Your task to perform on an android device: turn off notifications settings in the gmail app Image 0: 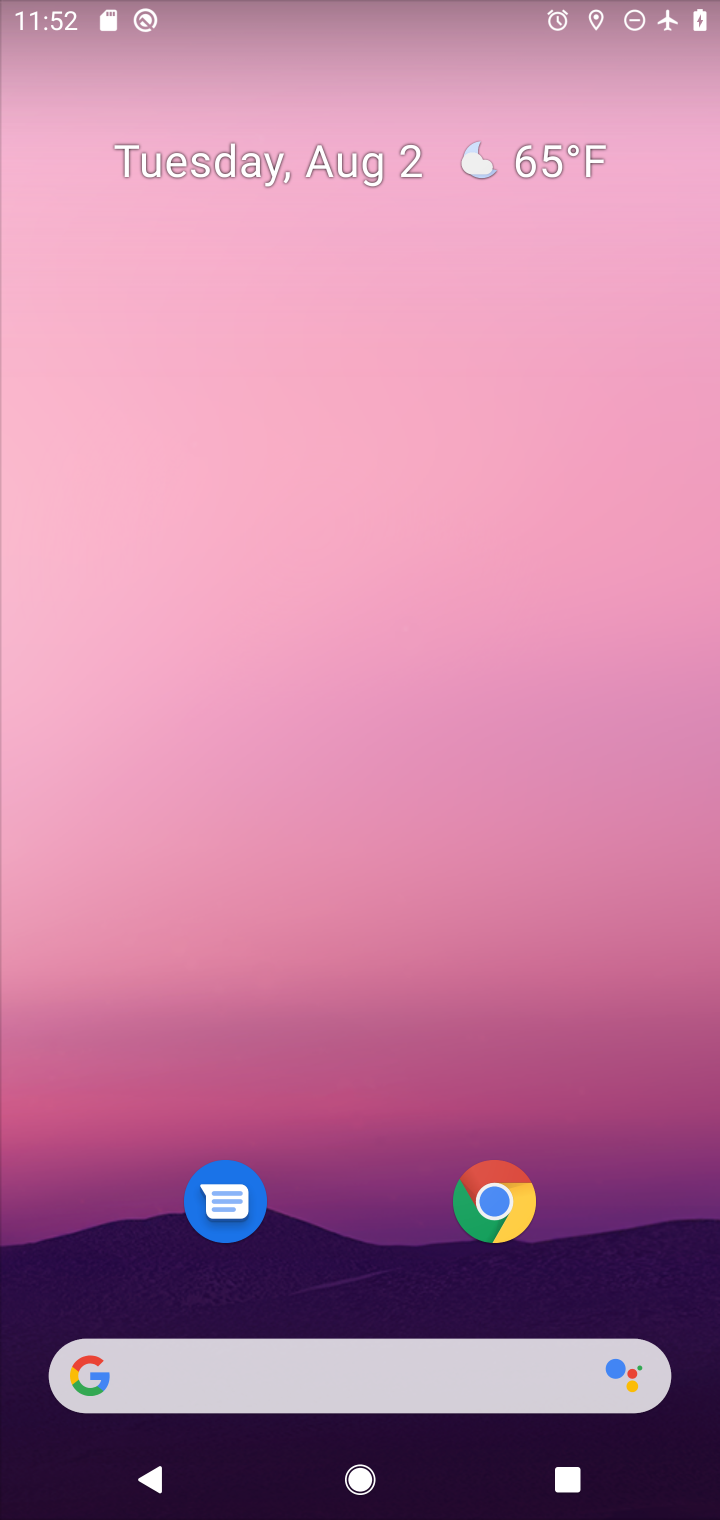
Step 0: drag from (354, 1279) to (479, 52)
Your task to perform on an android device: turn off notifications settings in the gmail app Image 1: 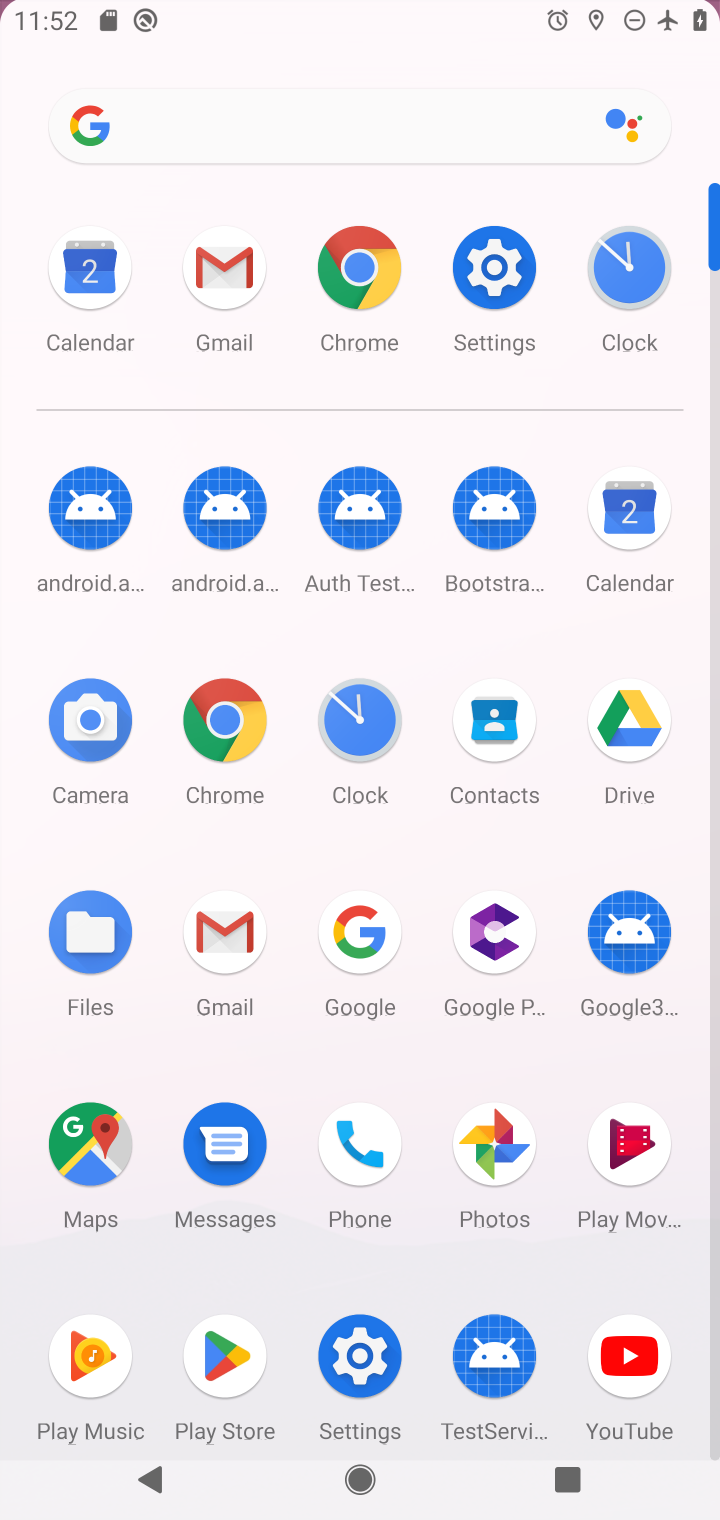
Step 1: click (245, 945)
Your task to perform on an android device: turn off notifications settings in the gmail app Image 2: 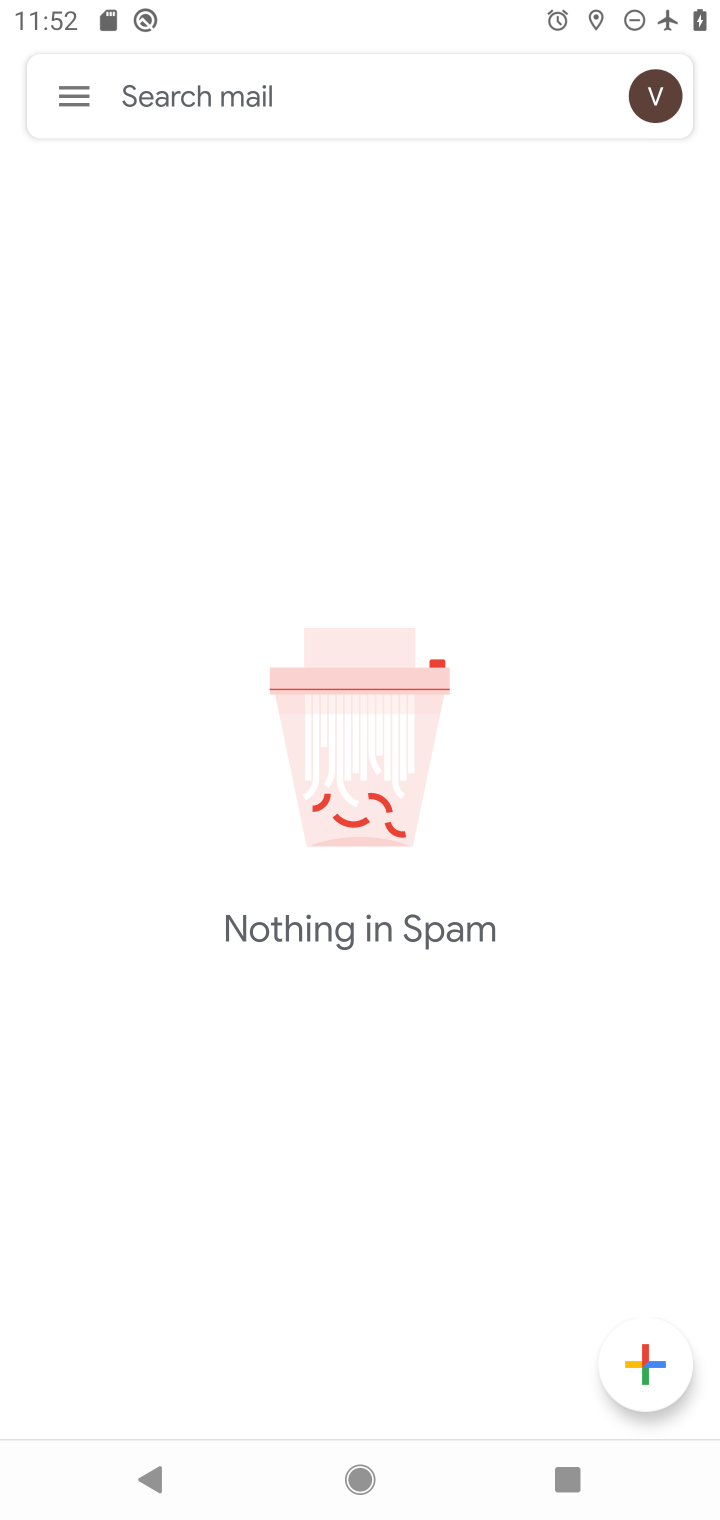
Step 2: click (58, 98)
Your task to perform on an android device: turn off notifications settings in the gmail app Image 3: 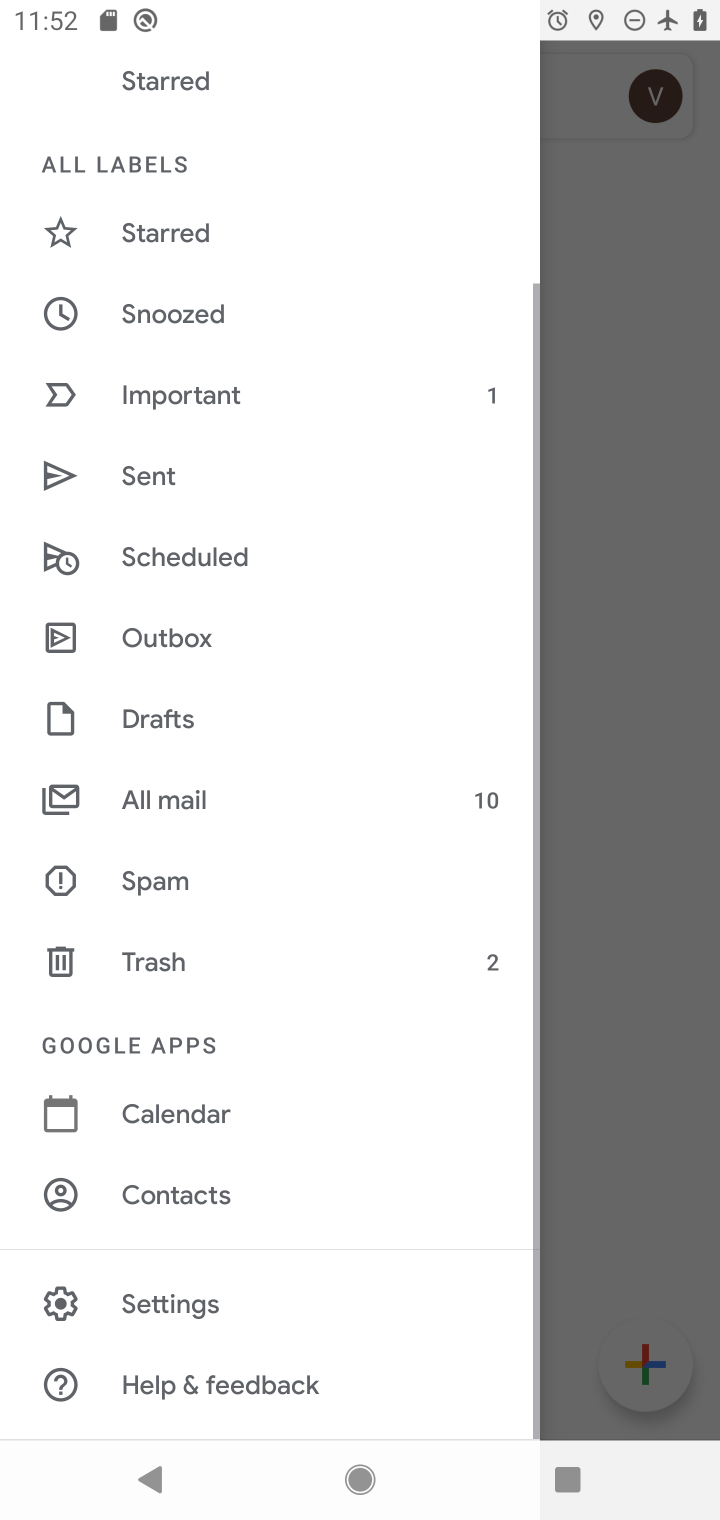
Step 3: drag from (206, 1247) to (187, 167)
Your task to perform on an android device: turn off notifications settings in the gmail app Image 4: 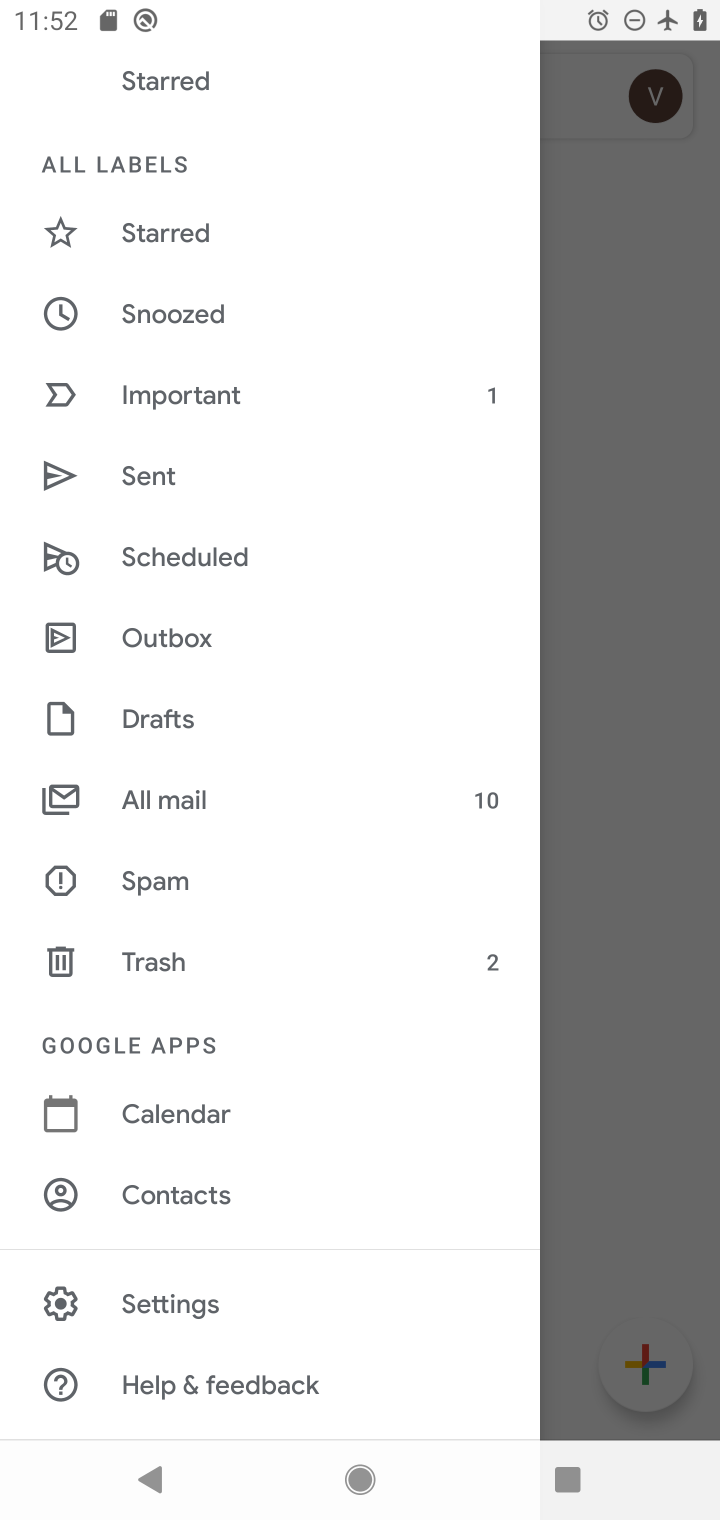
Step 4: click (123, 1297)
Your task to perform on an android device: turn off notifications settings in the gmail app Image 5: 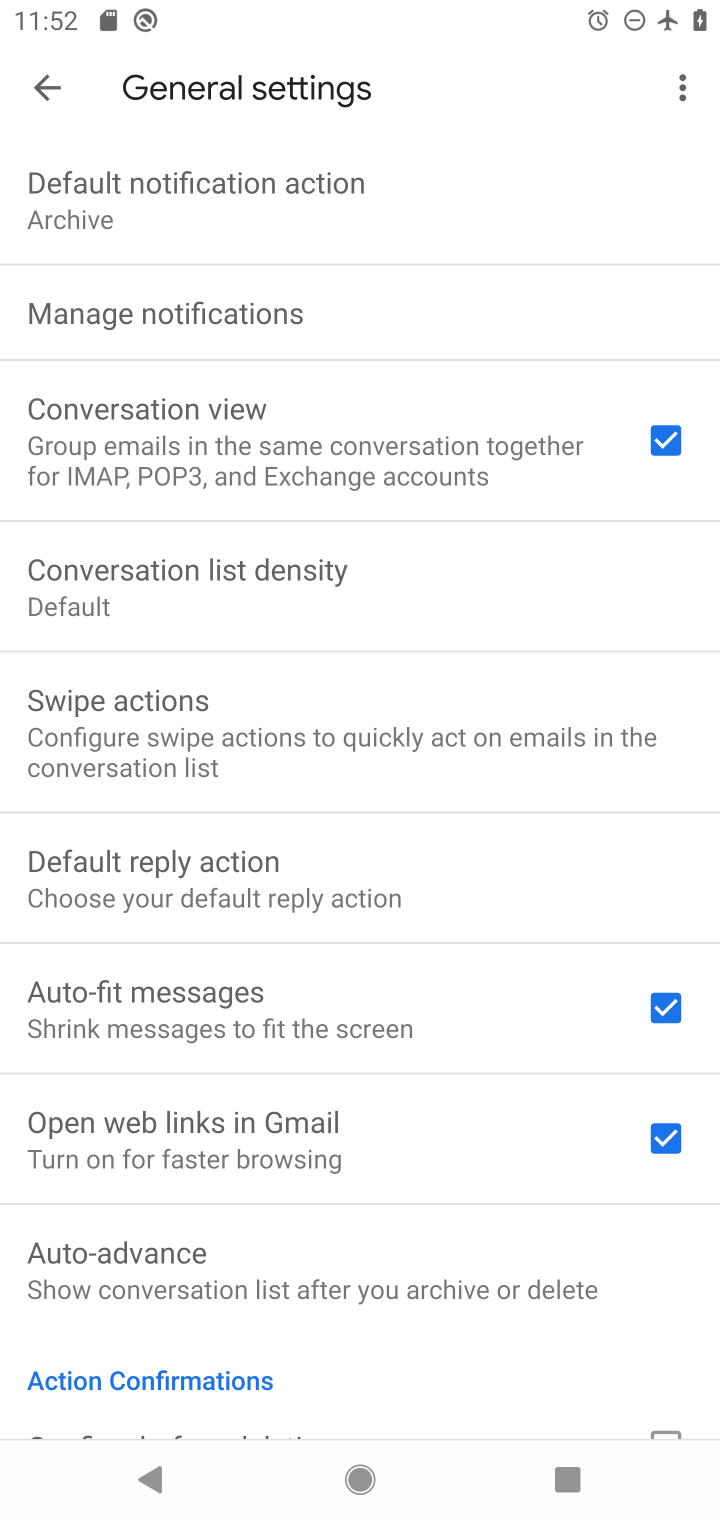
Step 5: click (232, 276)
Your task to perform on an android device: turn off notifications settings in the gmail app Image 6: 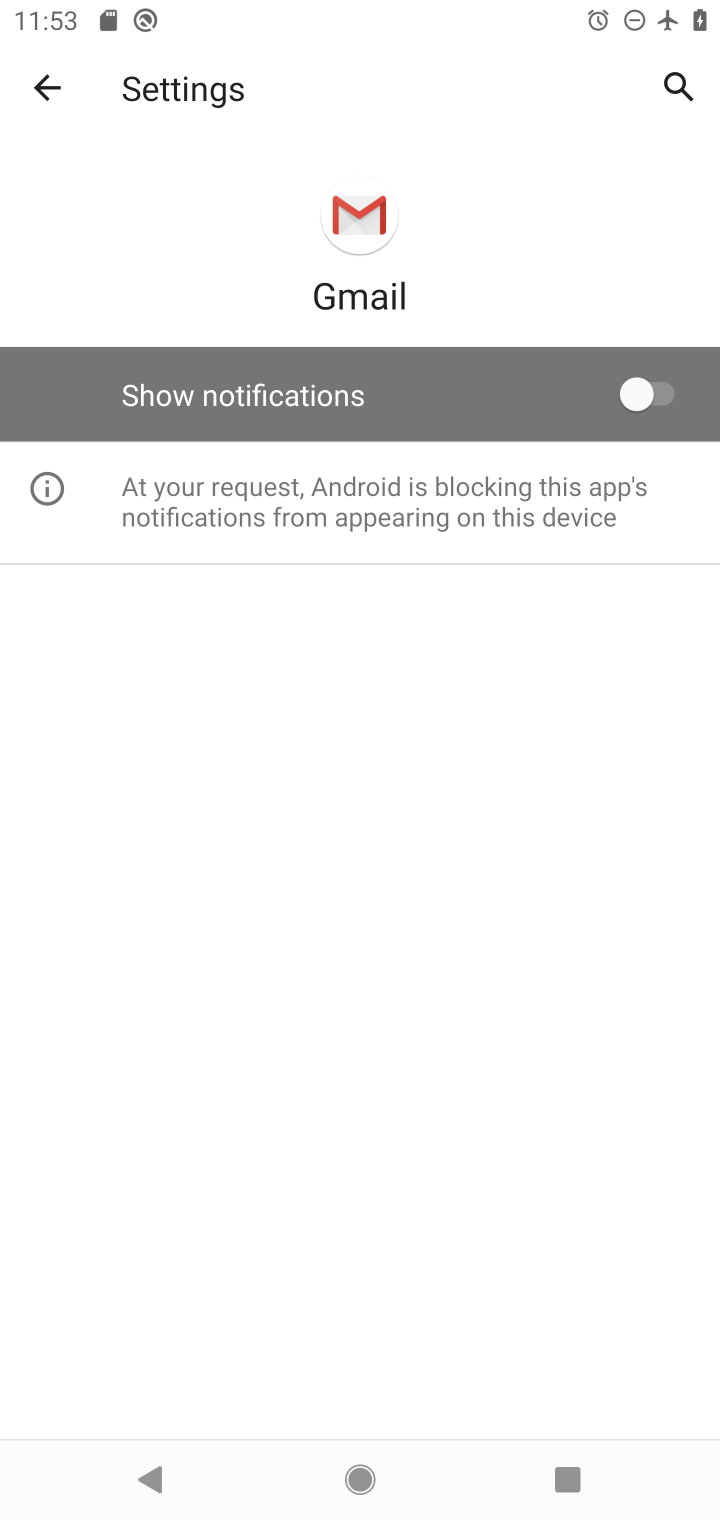
Step 6: task complete